Your task to perform on an android device: add a contact in the contacts app Image 0: 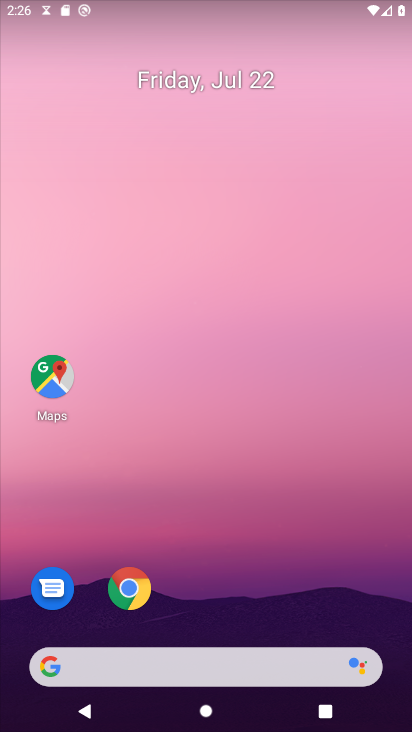
Step 0: drag from (257, 528) to (261, 198)
Your task to perform on an android device: add a contact in the contacts app Image 1: 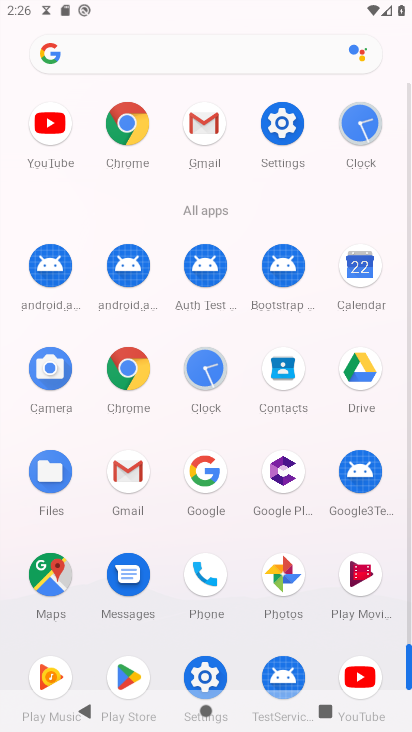
Step 1: drag from (184, 430) to (166, 197)
Your task to perform on an android device: add a contact in the contacts app Image 2: 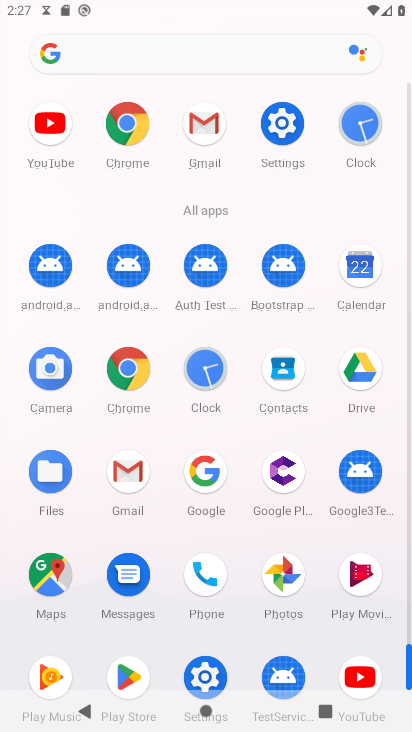
Step 2: click (280, 362)
Your task to perform on an android device: add a contact in the contacts app Image 3: 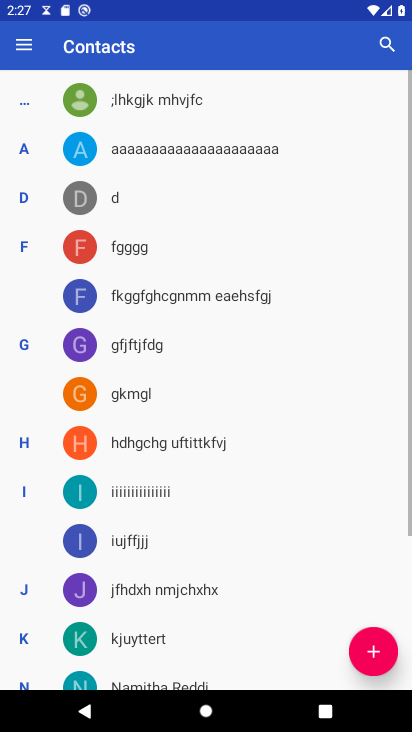
Step 3: click (306, 390)
Your task to perform on an android device: add a contact in the contacts app Image 4: 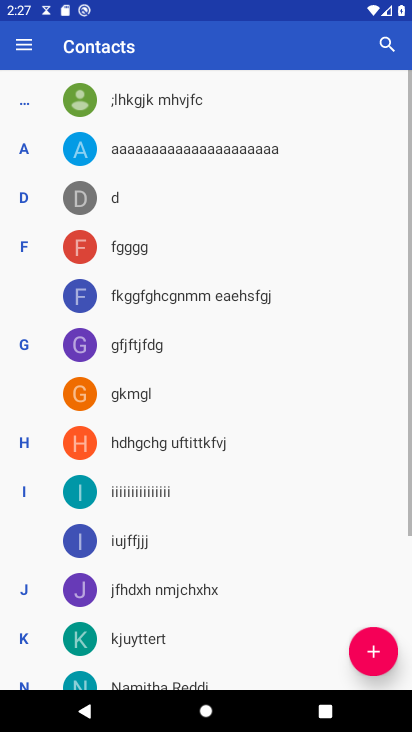
Step 4: click (276, 349)
Your task to perform on an android device: add a contact in the contacts app Image 5: 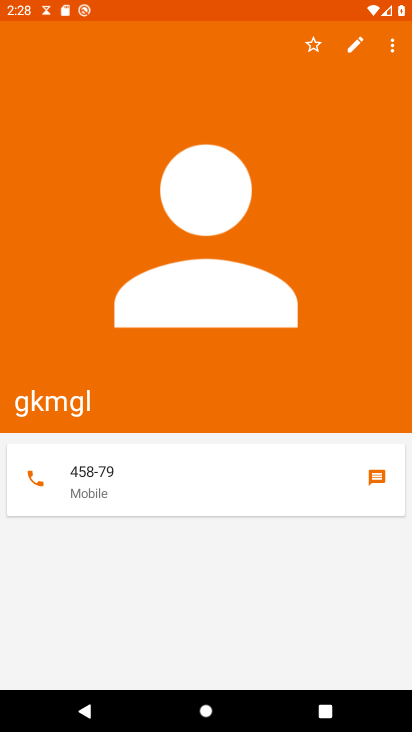
Step 5: press back button
Your task to perform on an android device: add a contact in the contacts app Image 6: 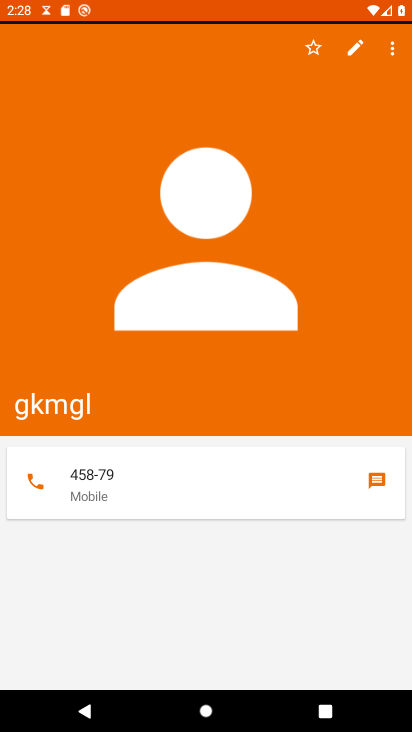
Step 6: press back button
Your task to perform on an android device: add a contact in the contacts app Image 7: 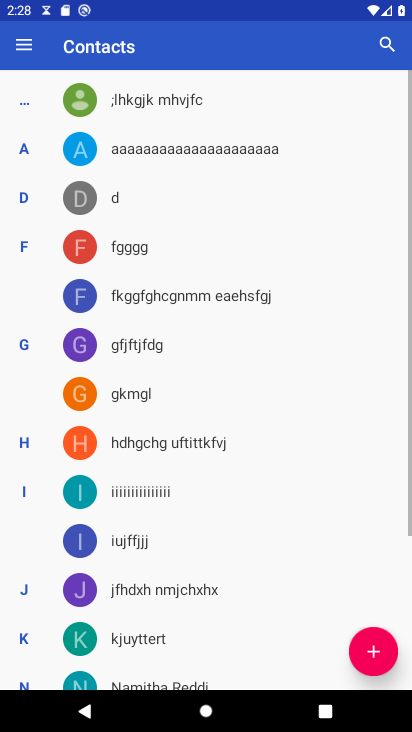
Step 7: press back button
Your task to perform on an android device: add a contact in the contacts app Image 8: 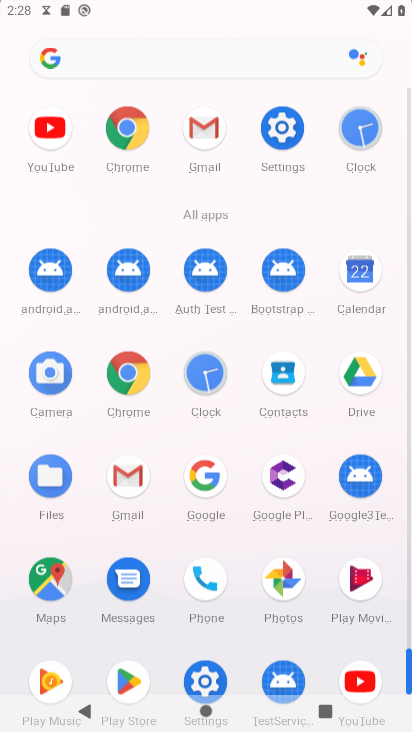
Step 8: press back button
Your task to perform on an android device: add a contact in the contacts app Image 9: 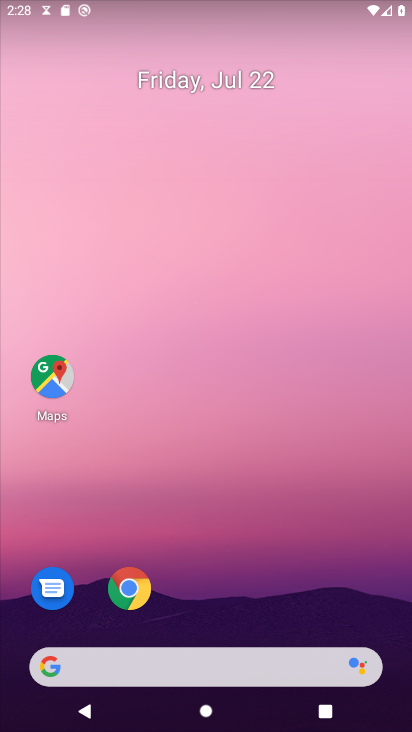
Step 9: drag from (215, 25) to (261, 0)
Your task to perform on an android device: add a contact in the contacts app Image 10: 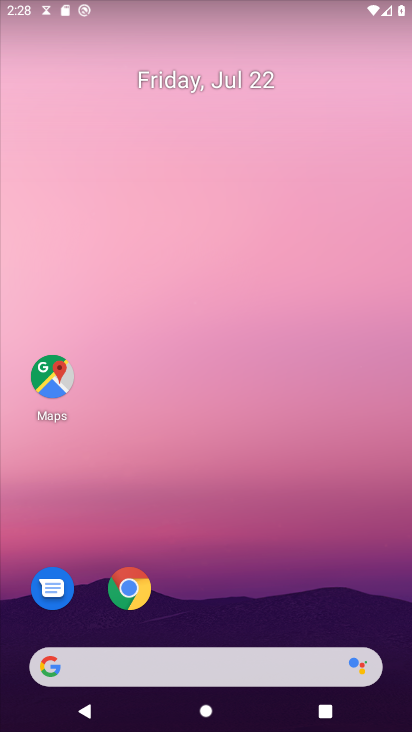
Step 10: drag from (222, 280) to (218, 65)
Your task to perform on an android device: add a contact in the contacts app Image 11: 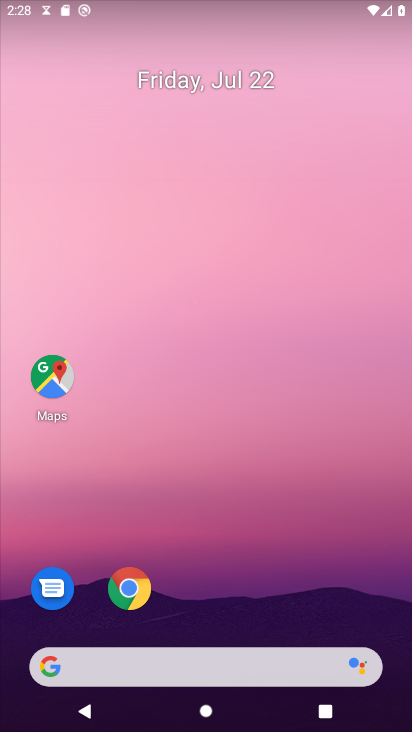
Step 11: drag from (224, 600) to (192, 273)
Your task to perform on an android device: add a contact in the contacts app Image 12: 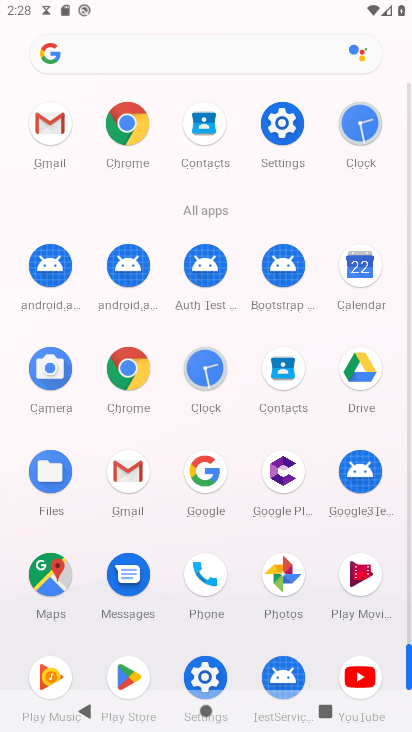
Step 12: click (272, 366)
Your task to perform on an android device: add a contact in the contacts app Image 13: 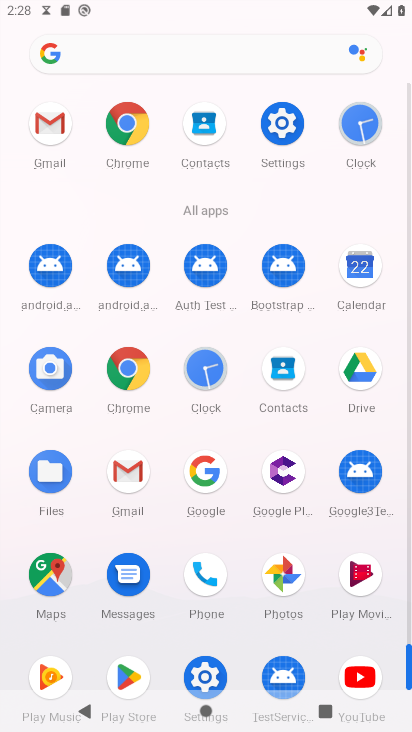
Step 13: click (283, 375)
Your task to perform on an android device: add a contact in the contacts app Image 14: 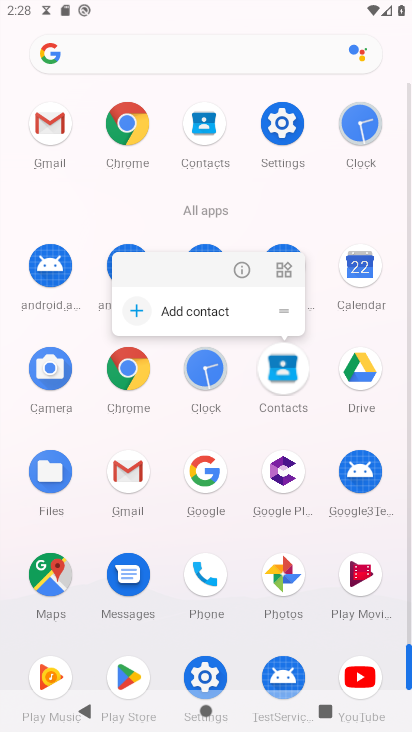
Step 14: click (286, 373)
Your task to perform on an android device: add a contact in the contacts app Image 15: 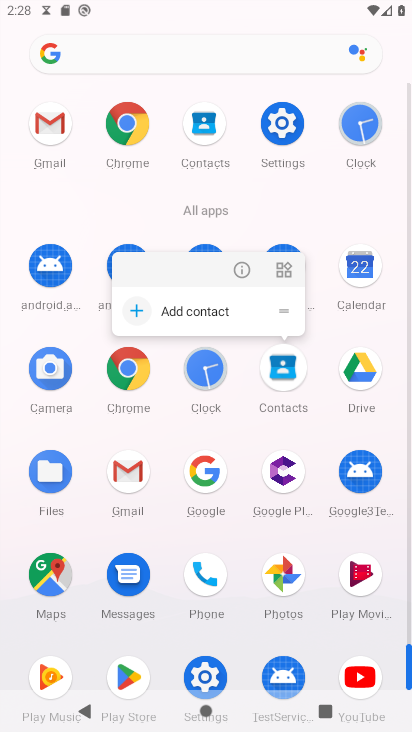
Step 15: click (286, 373)
Your task to perform on an android device: add a contact in the contacts app Image 16: 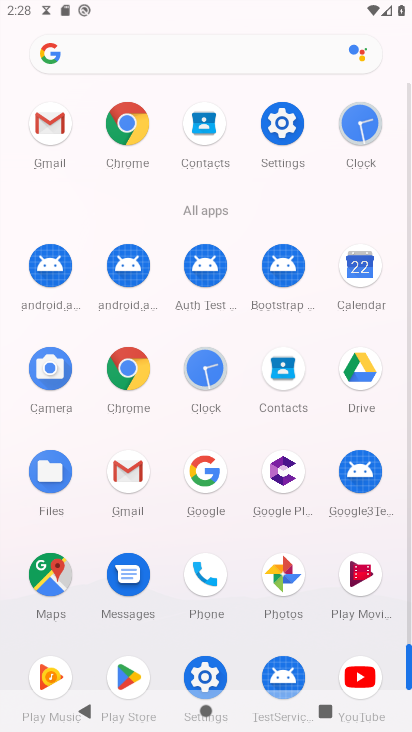
Step 16: click (287, 370)
Your task to perform on an android device: add a contact in the contacts app Image 17: 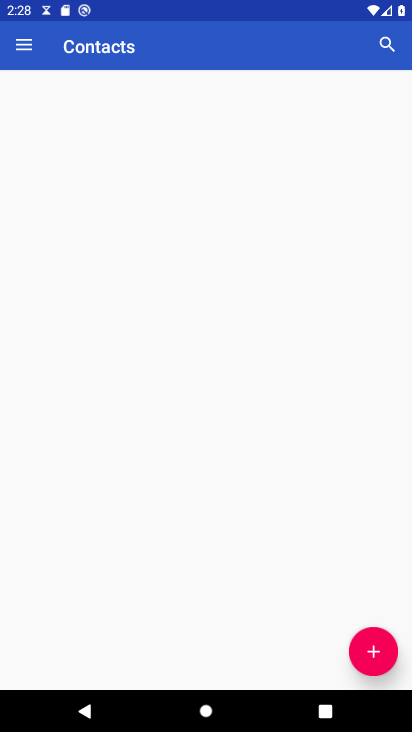
Step 17: click (287, 365)
Your task to perform on an android device: add a contact in the contacts app Image 18: 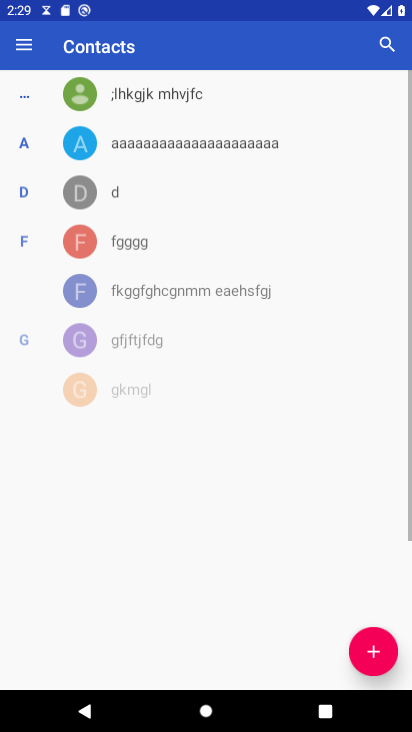
Step 18: click (287, 366)
Your task to perform on an android device: add a contact in the contacts app Image 19: 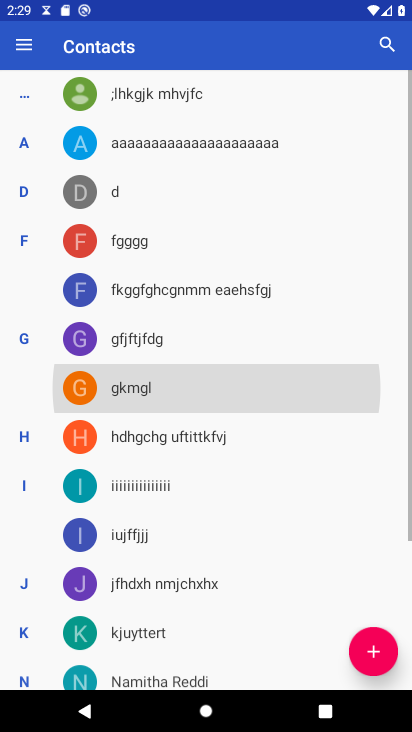
Step 19: click (288, 367)
Your task to perform on an android device: add a contact in the contacts app Image 20: 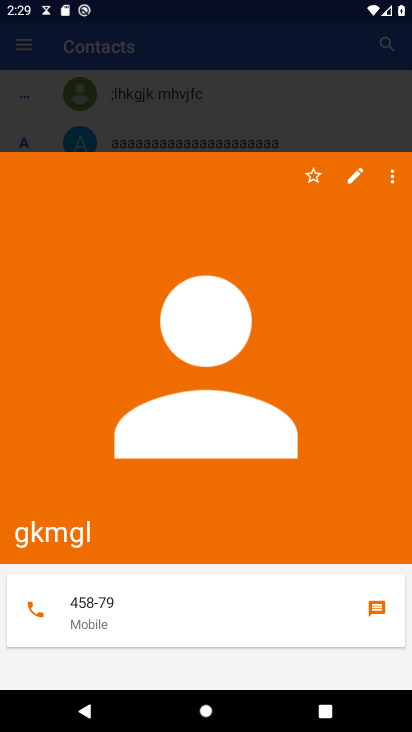
Step 20: click (243, 92)
Your task to perform on an android device: add a contact in the contacts app Image 21: 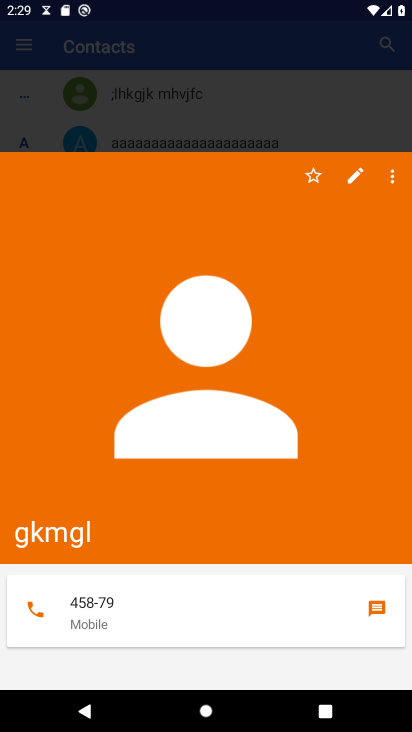
Step 21: click (243, 92)
Your task to perform on an android device: add a contact in the contacts app Image 22: 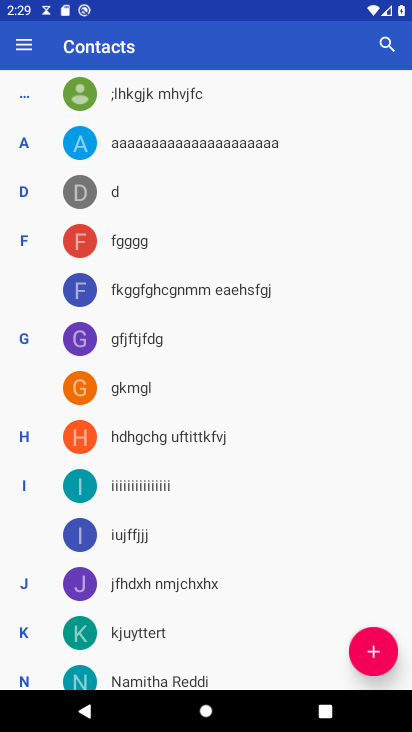
Step 22: task complete